Your task to perform on an android device: open app "Lyft - Rideshare, Bikes, Scooters & Transit" (install if not already installed) Image 0: 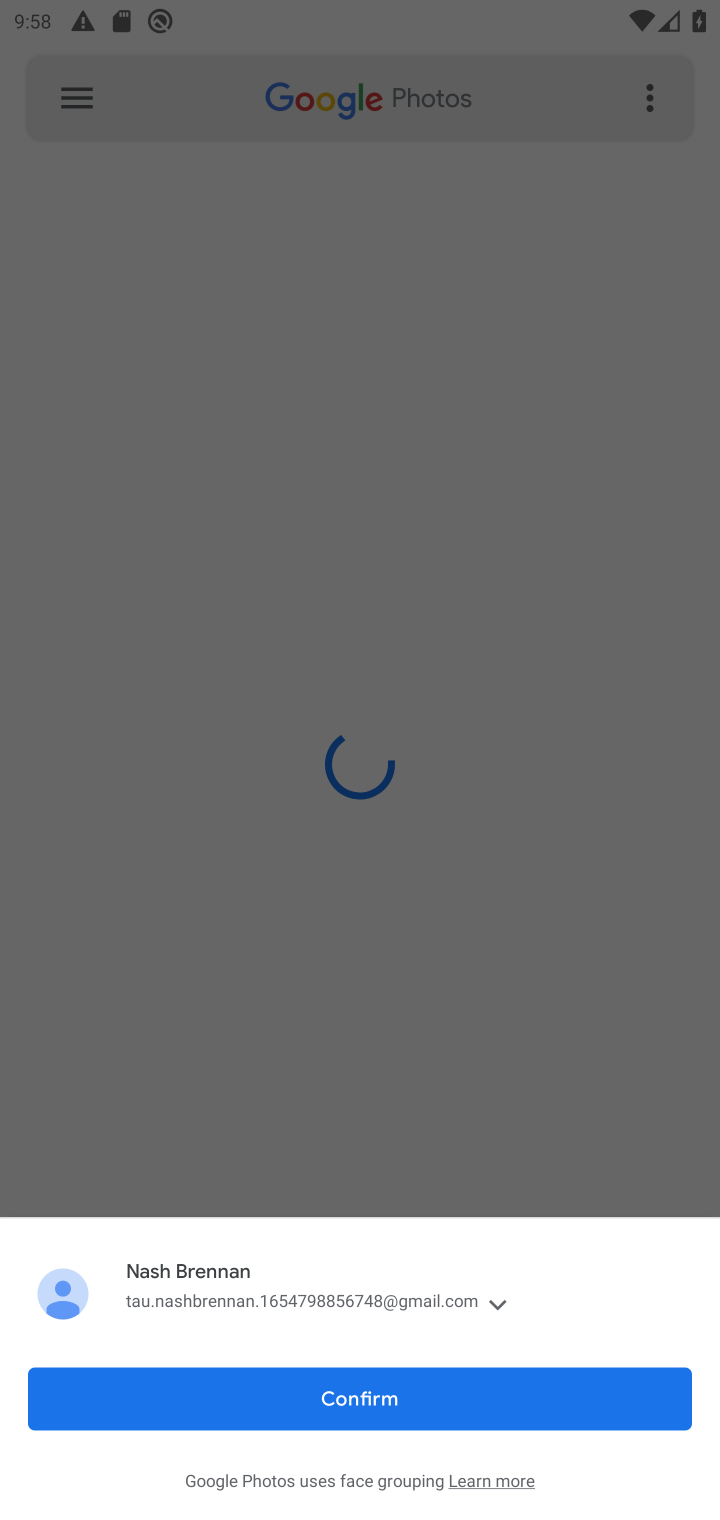
Step 0: press home button
Your task to perform on an android device: open app "Lyft - Rideshare, Bikes, Scooters & Transit" (install if not already installed) Image 1: 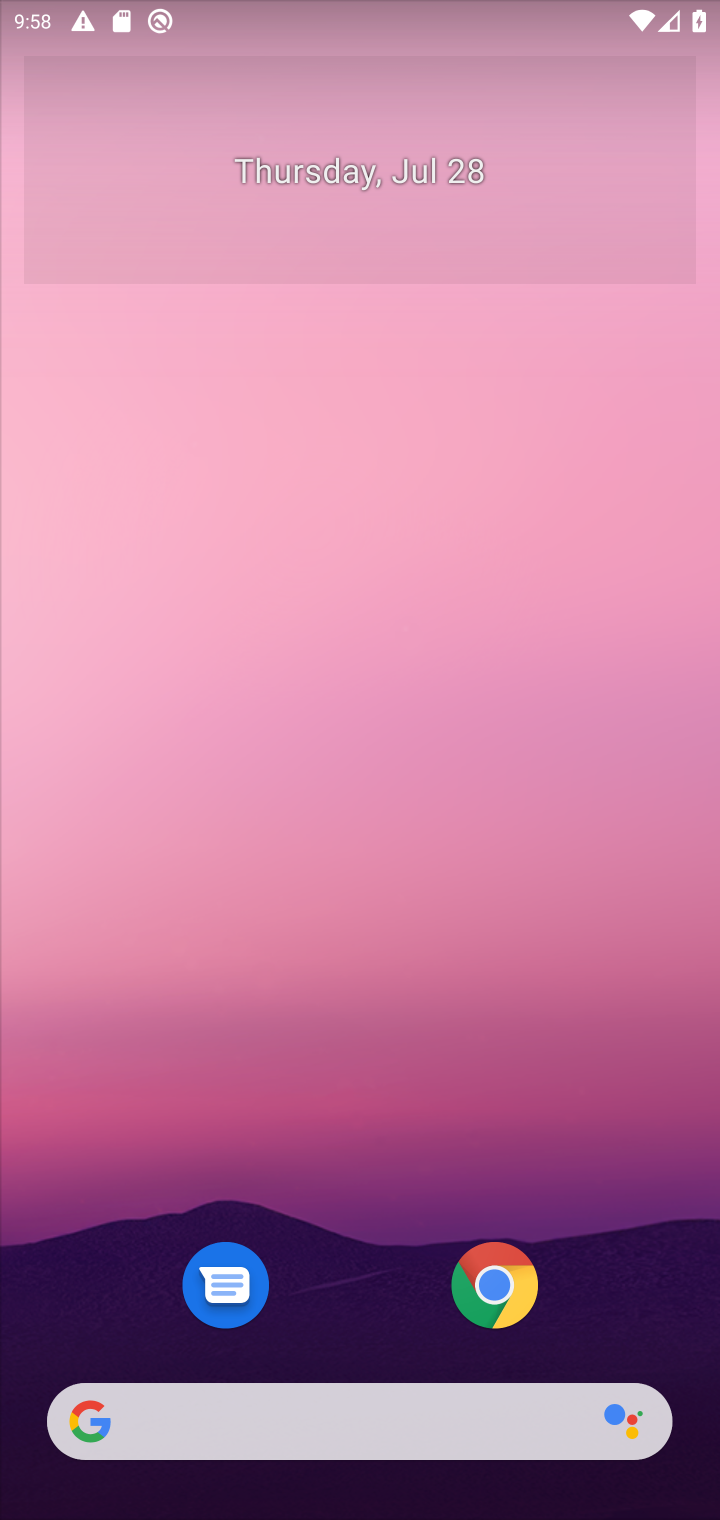
Step 1: drag from (517, 981) to (395, 110)
Your task to perform on an android device: open app "Lyft - Rideshare, Bikes, Scooters & Transit" (install if not already installed) Image 2: 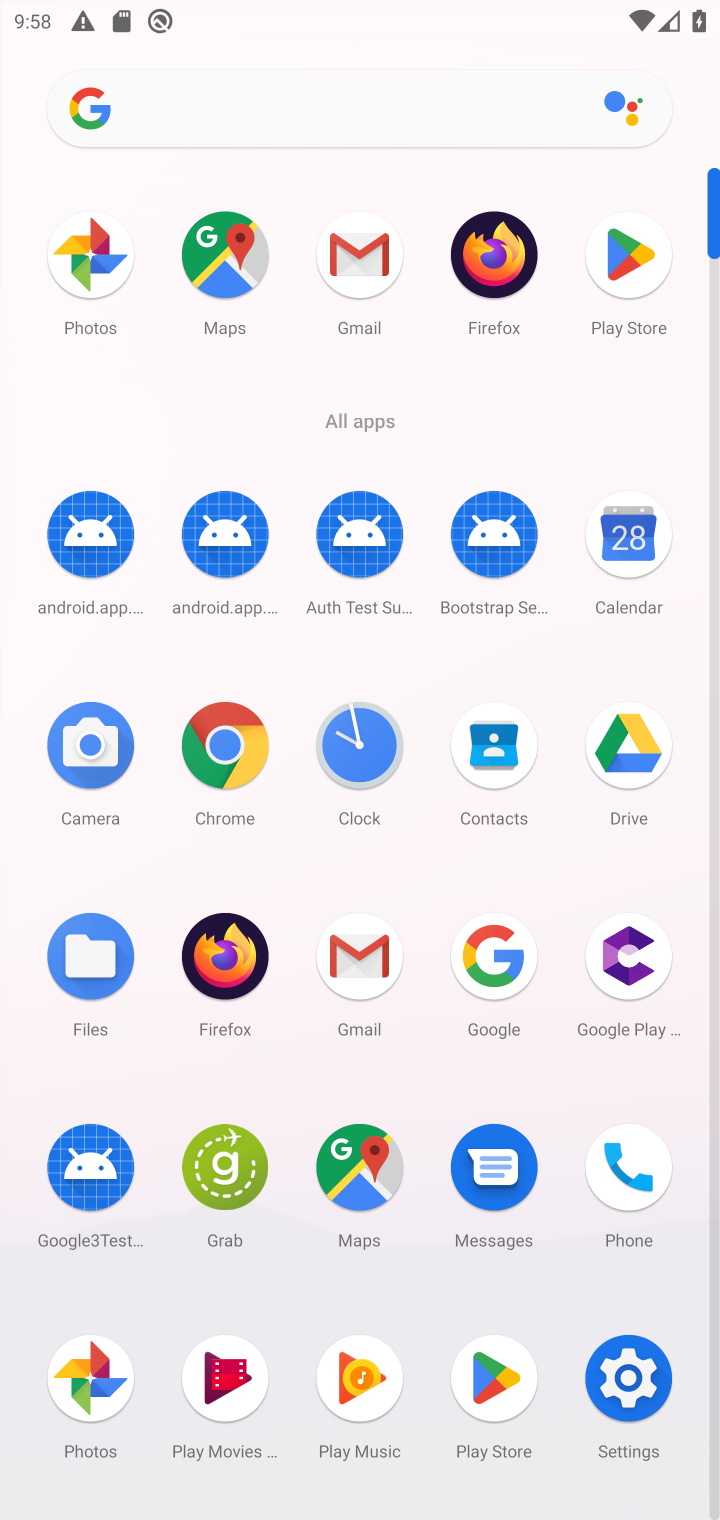
Step 2: click (630, 261)
Your task to perform on an android device: open app "Lyft - Rideshare, Bikes, Scooters & Transit" (install if not already installed) Image 3: 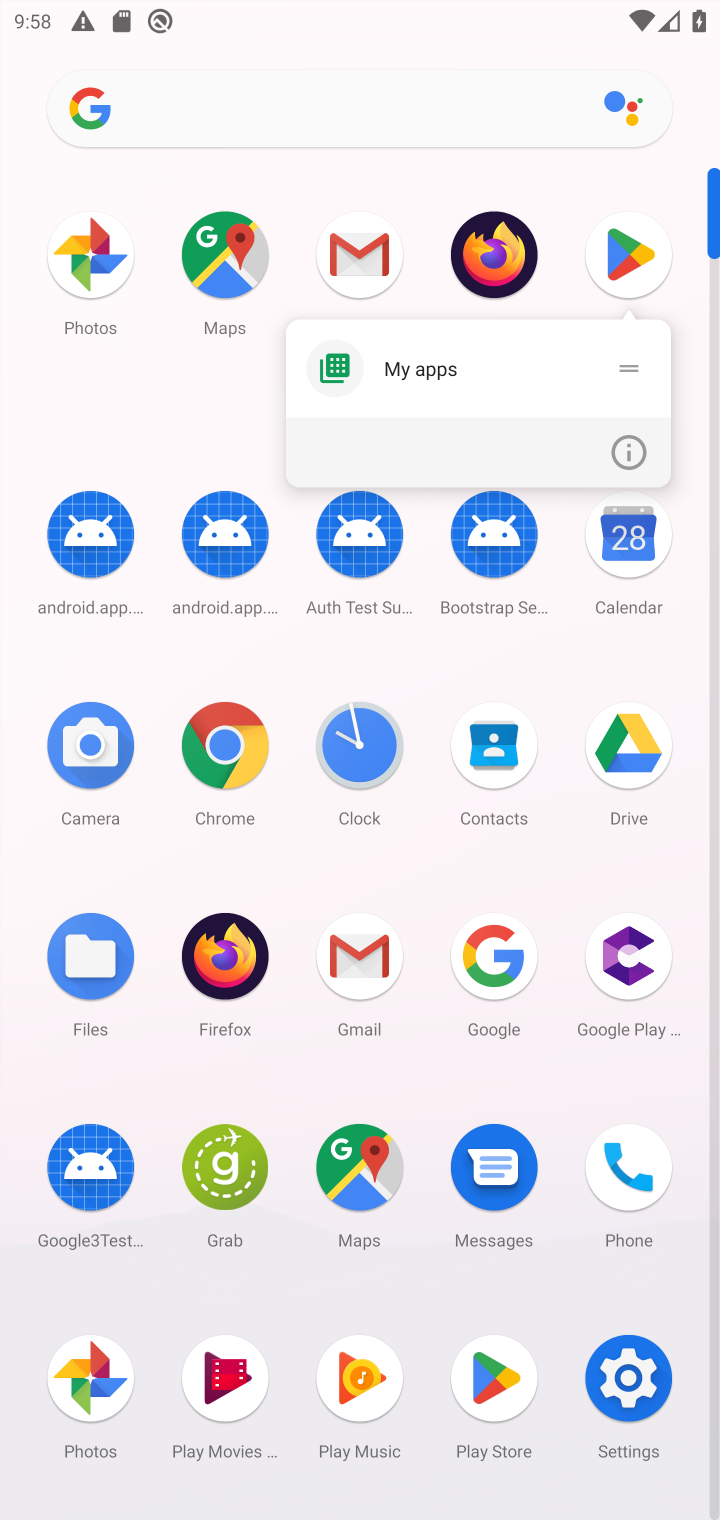
Step 3: click (618, 239)
Your task to perform on an android device: open app "Lyft - Rideshare, Bikes, Scooters & Transit" (install if not already installed) Image 4: 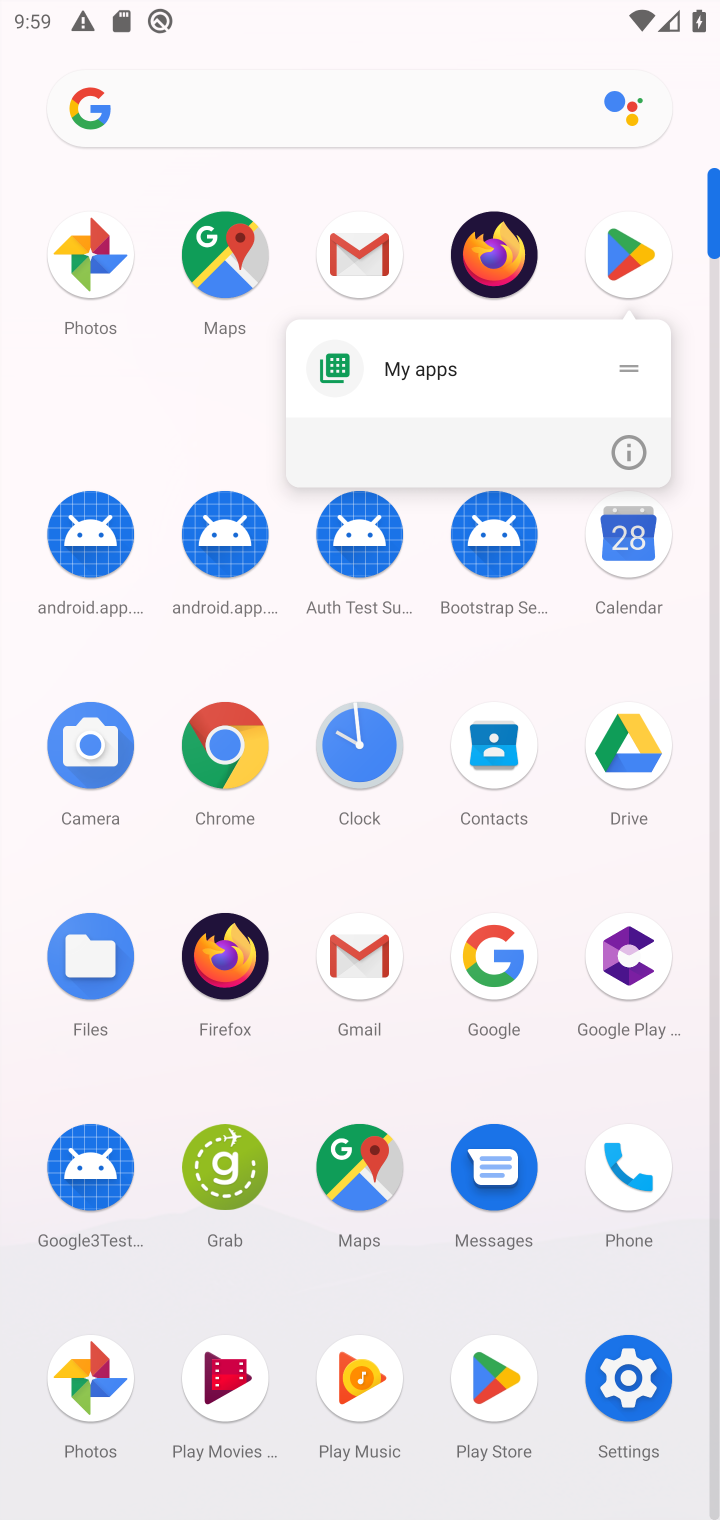
Step 4: click (625, 267)
Your task to perform on an android device: open app "Lyft - Rideshare, Bikes, Scooters & Transit" (install if not already installed) Image 5: 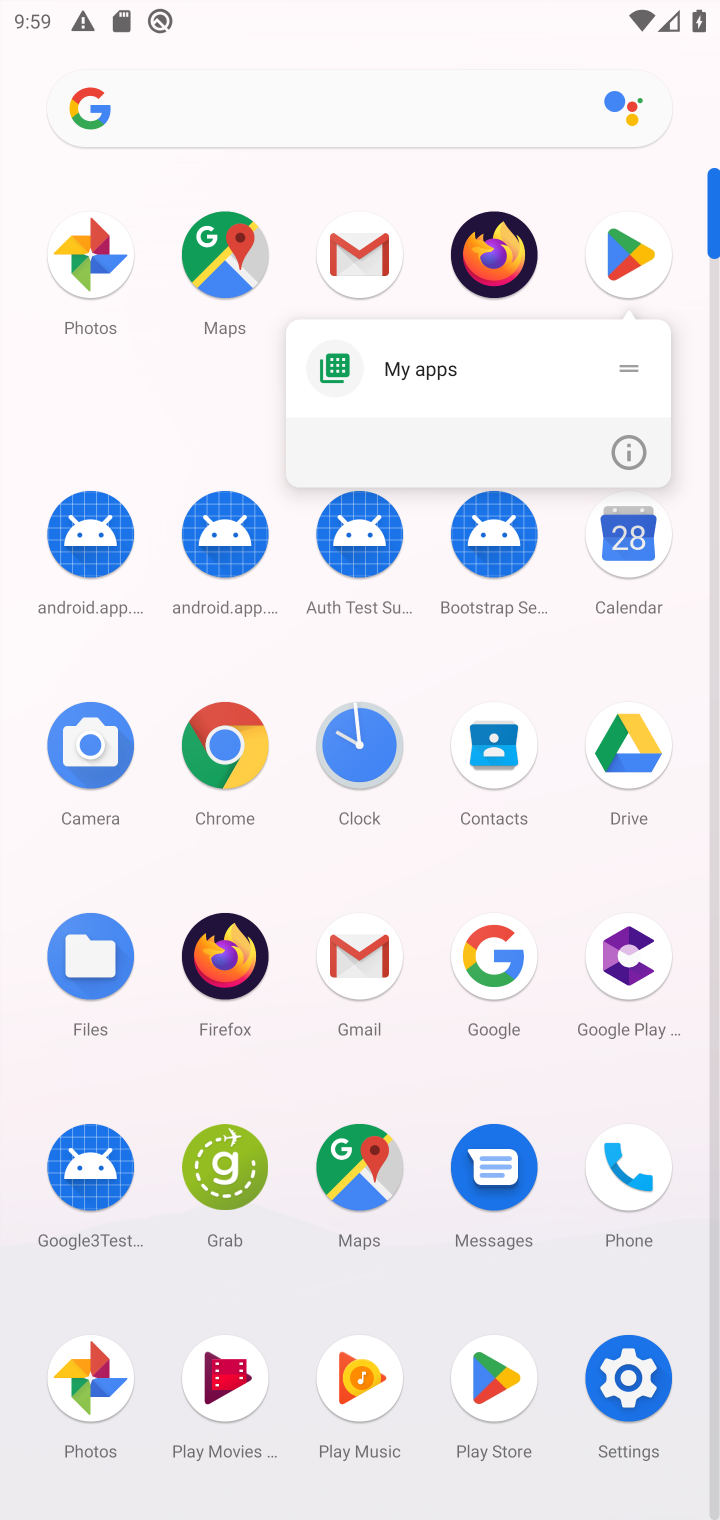
Step 5: click (623, 259)
Your task to perform on an android device: open app "Lyft - Rideshare, Bikes, Scooters & Transit" (install if not already installed) Image 6: 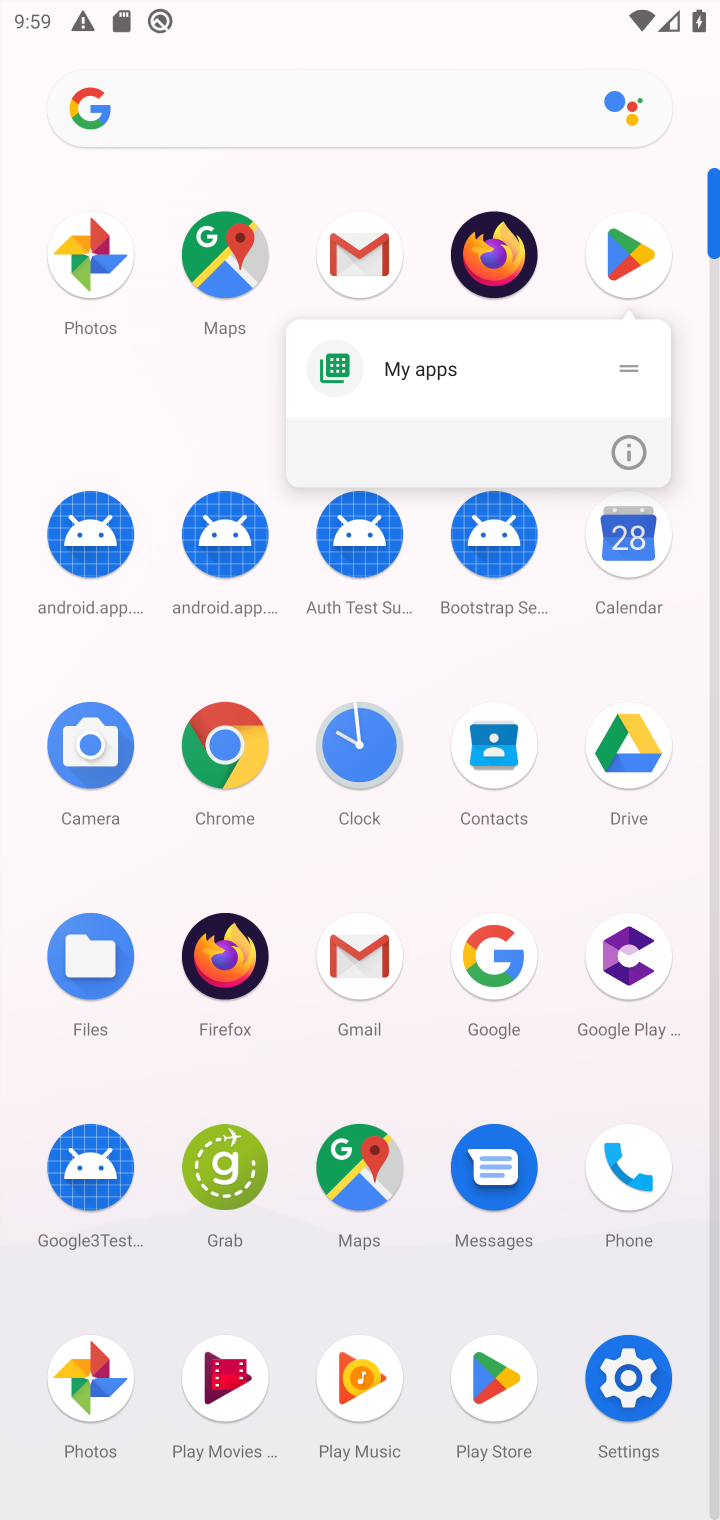
Step 6: click (647, 245)
Your task to perform on an android device: open app "Lyft - Rideshare, Bikes, Scooters & Transit" (install if not already installed) Image 7: 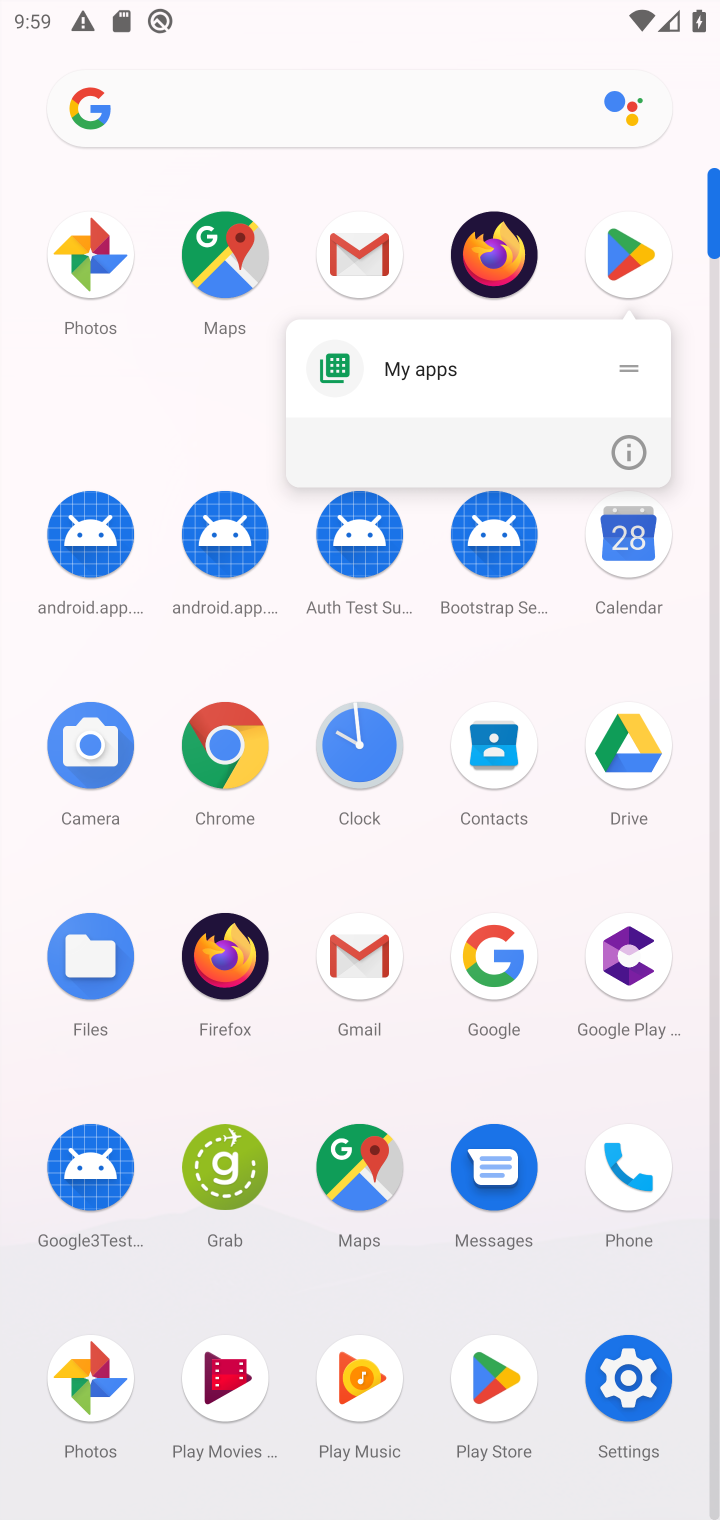
Step 7: click (635, 254)
Your task to perform on an android device: open app "Lyft - Rideshare, Bikes, Scooters & Transit" (install if not already installed) Image 8: 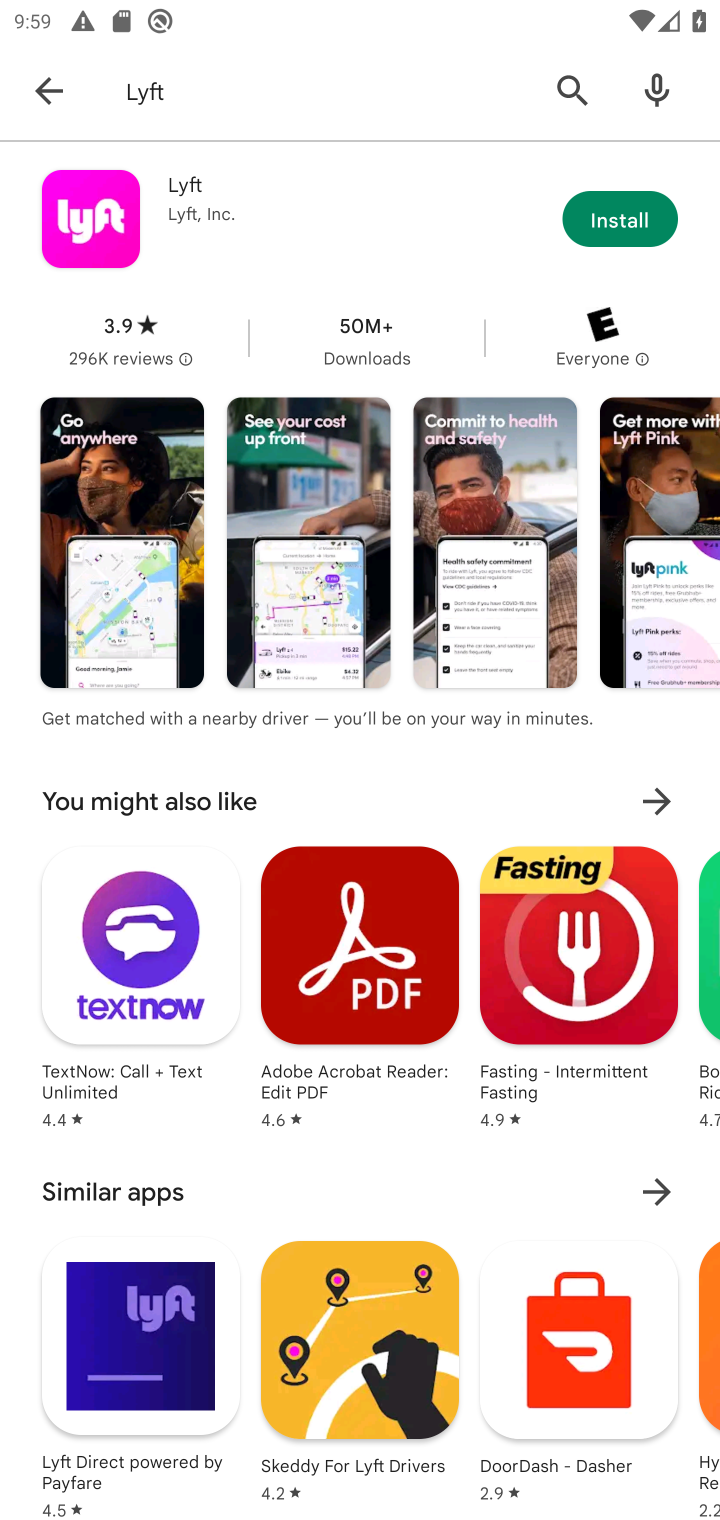
Step 8: click (625, 241)
Your task to perform on an android device: open app "Lyft - Rideshare, Bikes, Scooters & Transit" (install if not already installed) Image 9: 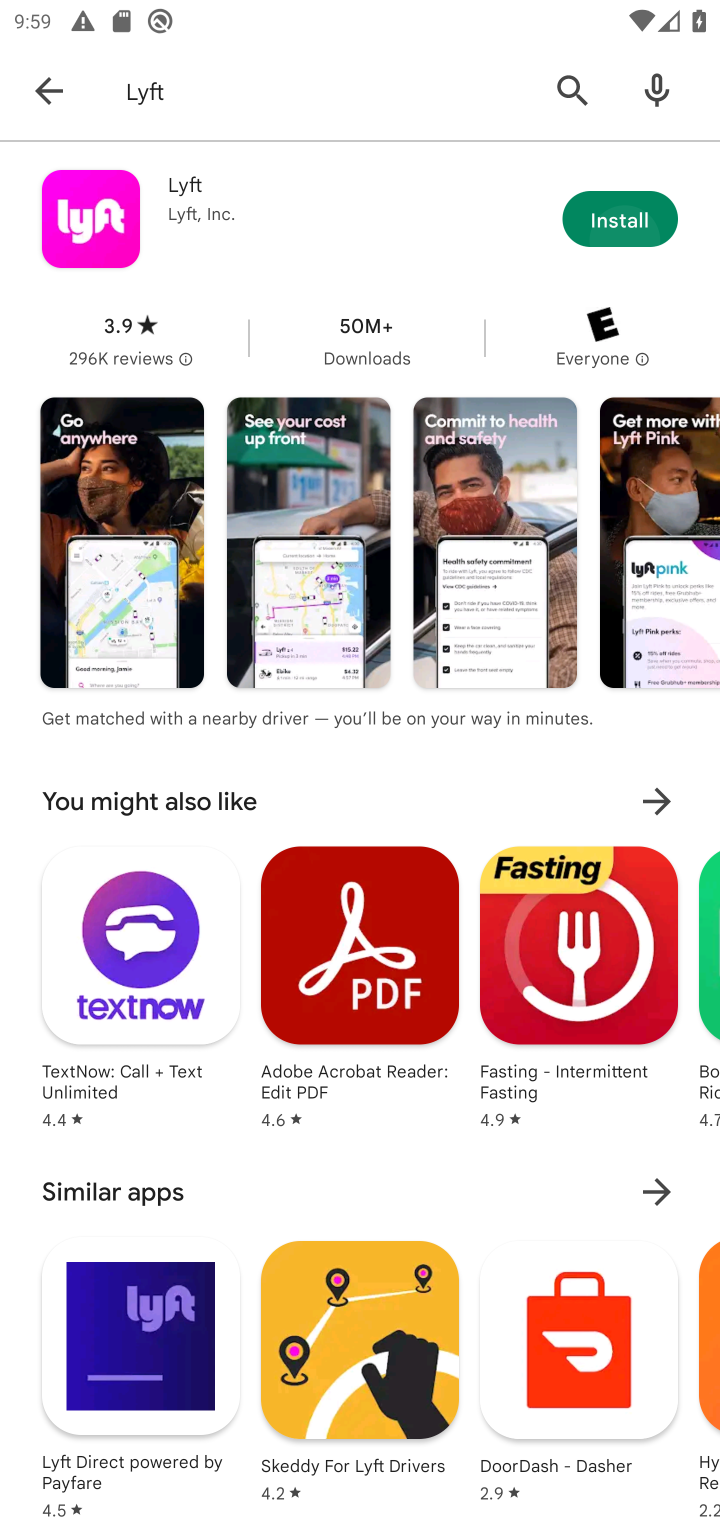
Step 9: click (160, 231)
Your task to perform on an android device: open app "Lyft - Rideshare, Bikes, Scooters & Transit" (install if not already installed) Image 10: 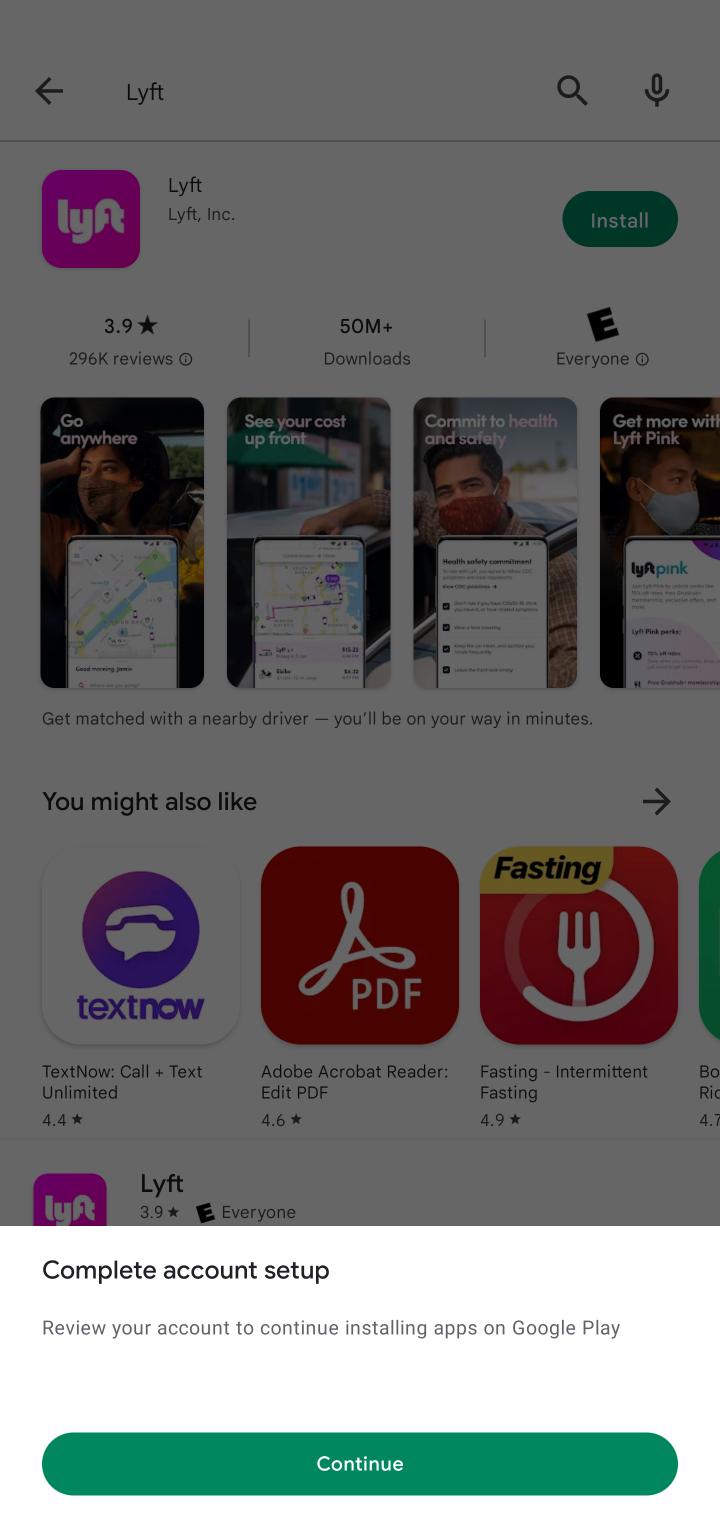
Step 10: click (427, 1464)
Your task to perform on an android device: open app "Lyft - Rideshare, Bikes, Scooters & Transit" (install if not already installed) Image 11: 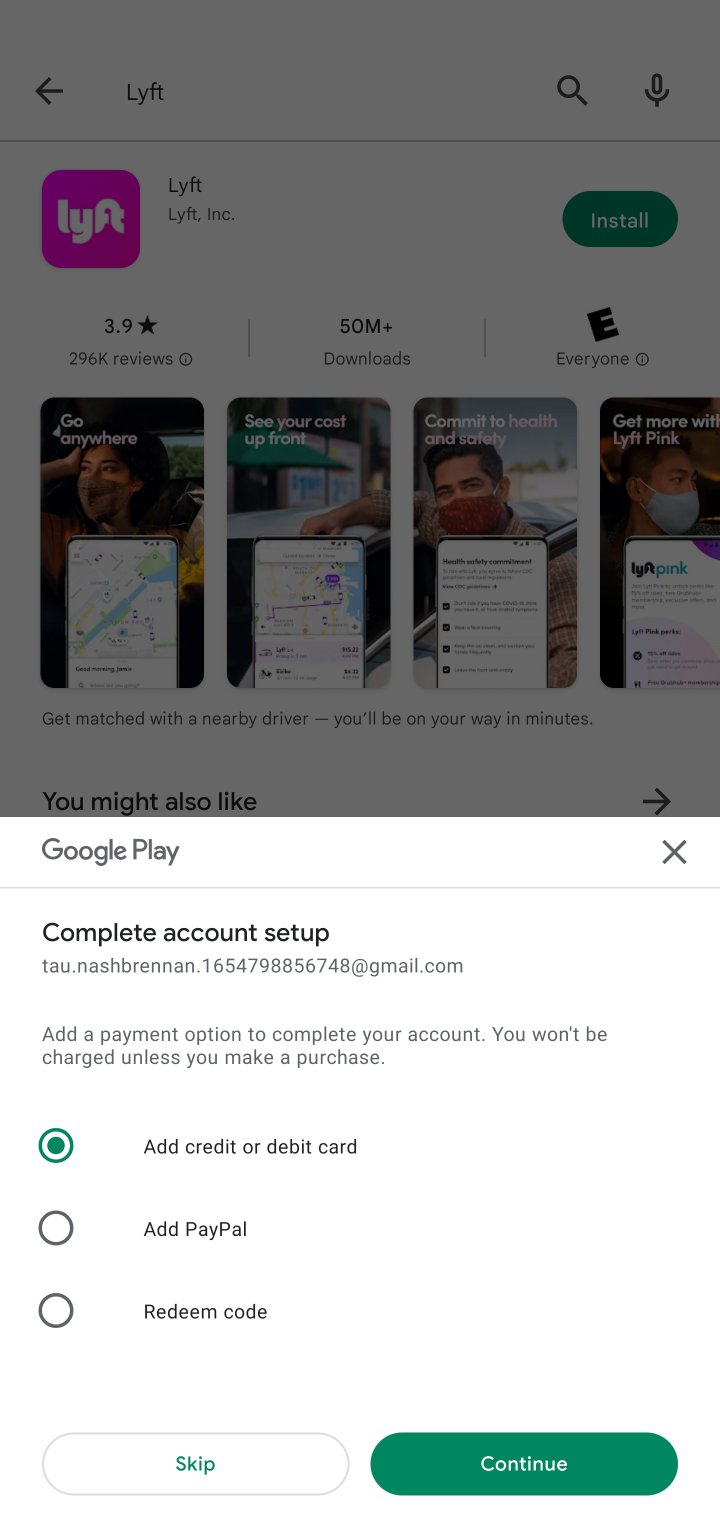
Step 11: click (222, 1458)
Your task to perform on an android device: open app "Lyft - Rideshare, Bikes, Scooters & Transit" (install if not already installed) Image 12: 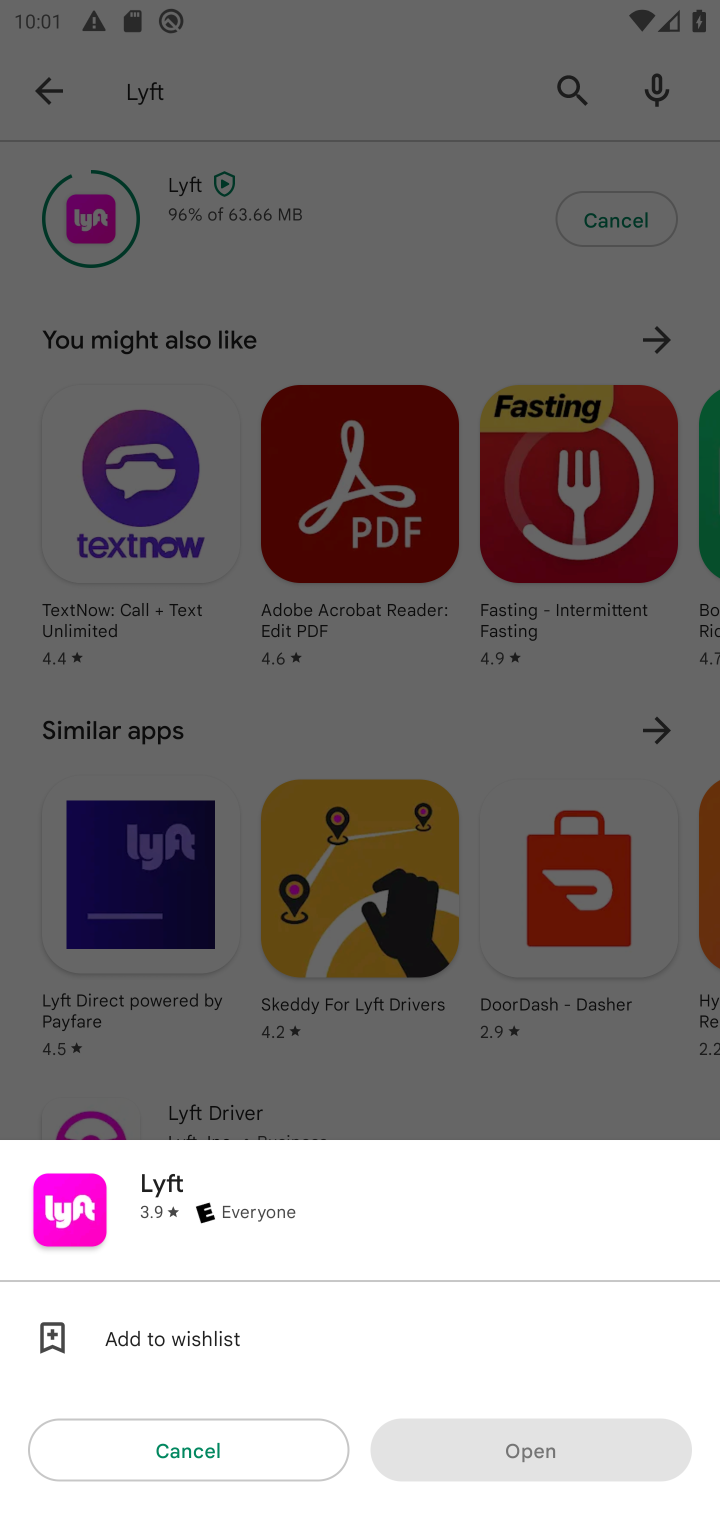
Step 12: click (304, 426)
Your task to perform on an android device: open app "Lyft - Rideshare, Bikes, Scooters & Transit" (install if not already installed) Image 13: 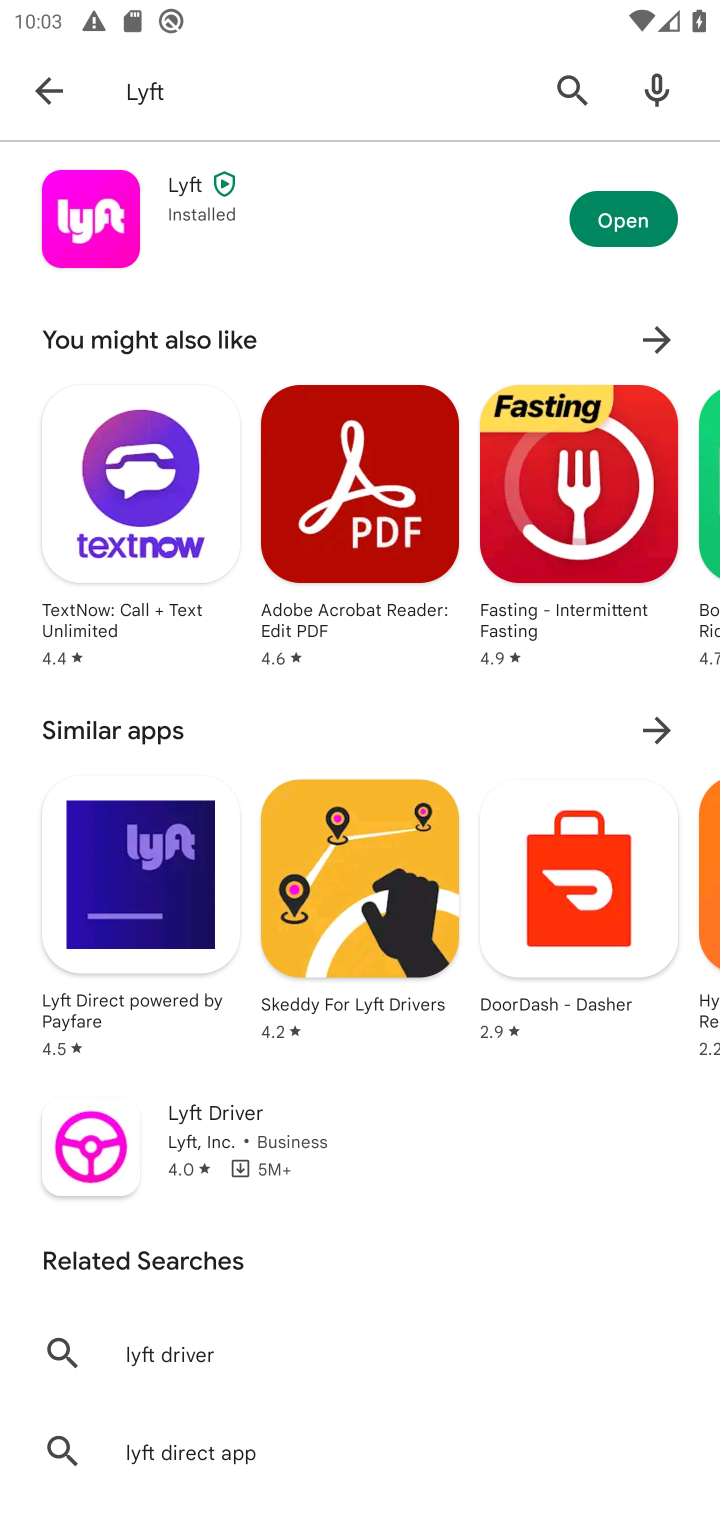
Step 13: click (586, 217)
Your task to perform on an android device: open app "Lyft - Rideshare, Bikes, Scooters & Transit" (install if not already installed) Image 14: 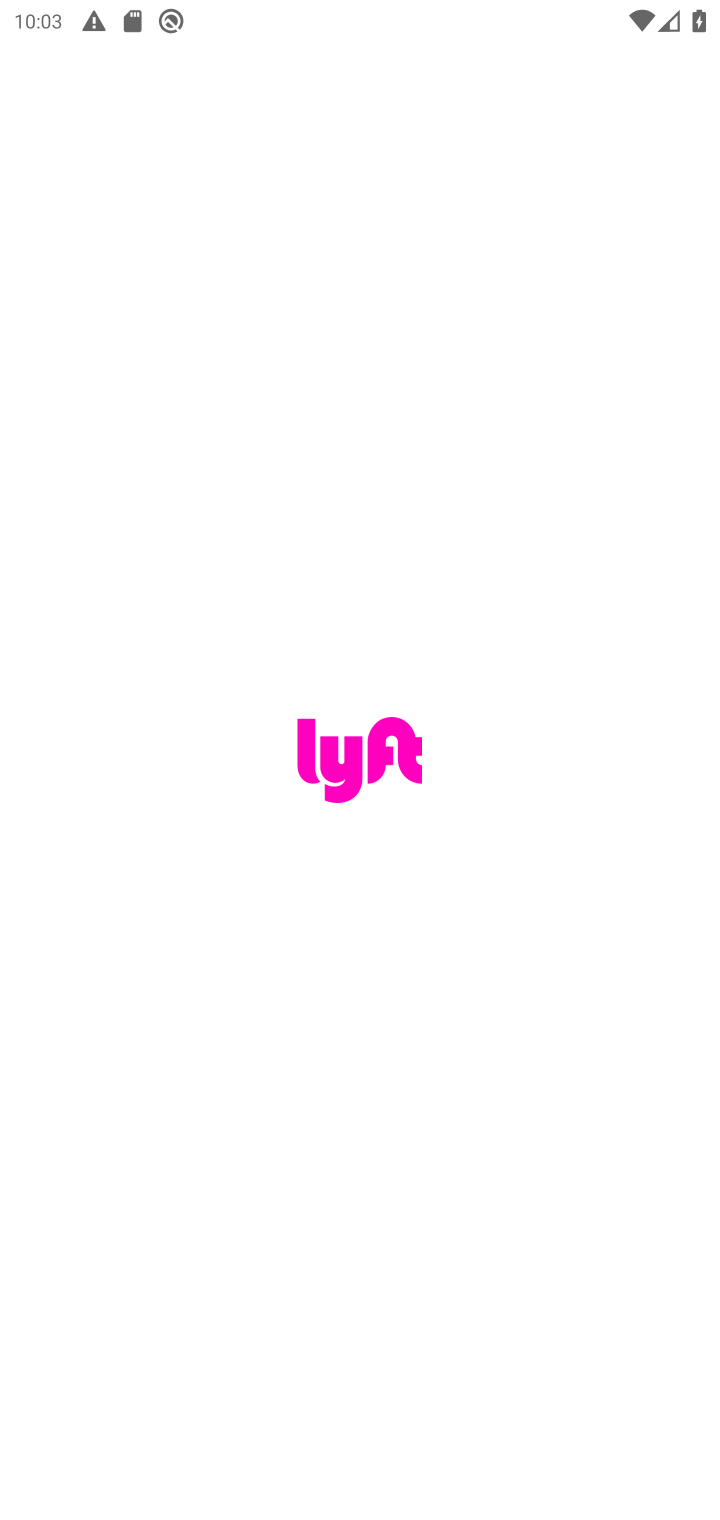
Step 14: task complete